Your task to perform on an android device: Open the calendar app, open the side menu, and click the "Day" option Image 0: 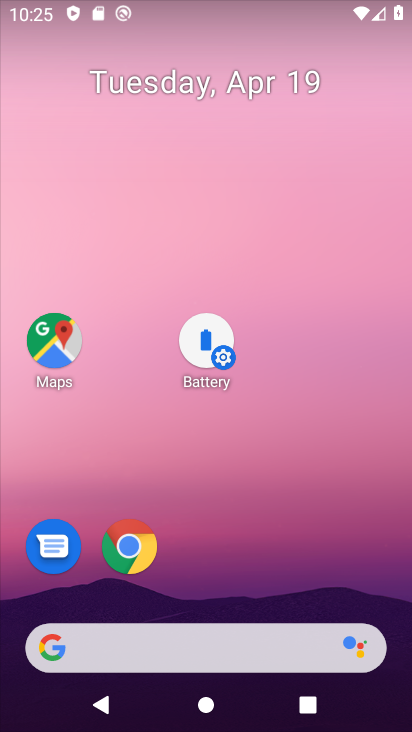
Step 0: drag from (191, 605) to (324, 49)
Your task to perform on an android device: Open the calendar app, open the side menu, and click the "Day" option Image 1: 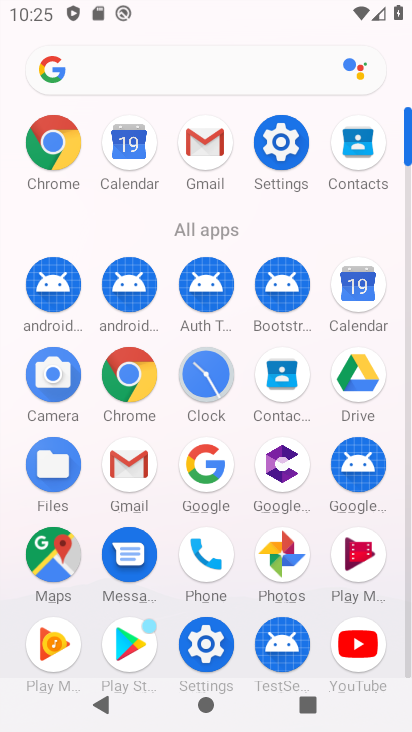
Step 1: click (352, 287)
Your task to perform on an android device: Open the calendar app, open the side menu, and click the "Day" option Image 2: 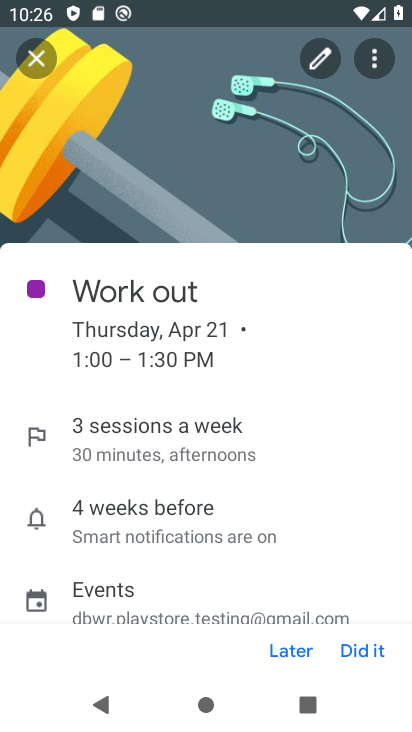
Step 2: click (29, 65)
Your task to perform on an android device: Open the calendar app, open the side menu, and click the "Day" option Image 3: 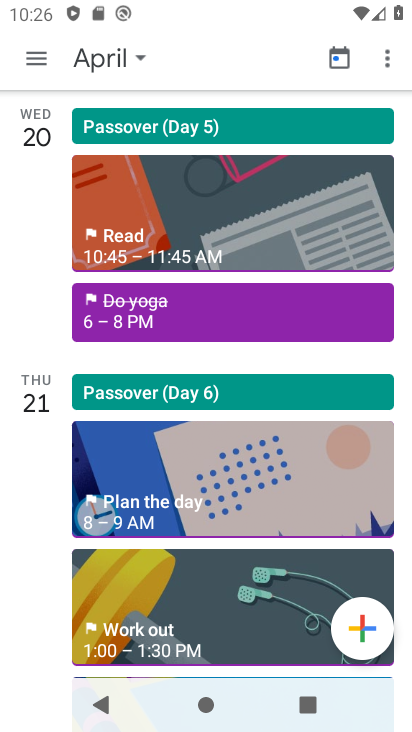
Step 3: click (22, 51)
Your task to perform on an android device: Open the calendar app, open the side menu, and click the "Day" option Image 4: 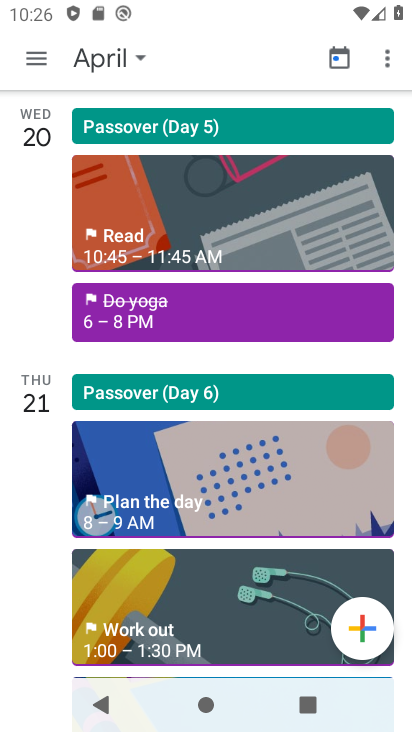
Step 4: click (37, 51)
Your task to perform on an android device: Open the calendar app, open the side menu, and click the "Day" option Image 5: 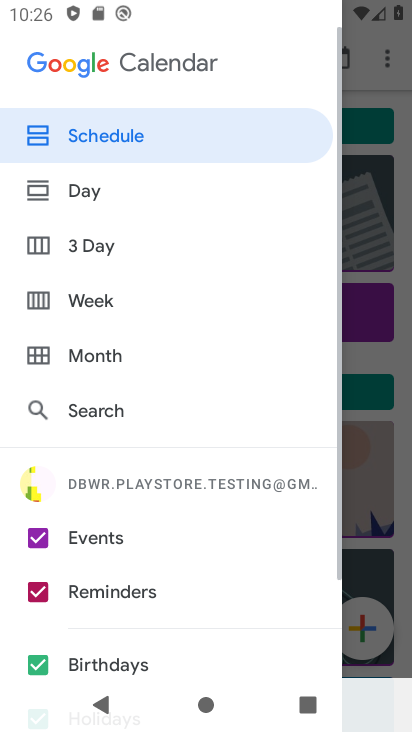
Step 5: click (111, 187)
Your task to perform on an android device: Open the calendar app, open the side menu, and click the "Day" option Image 6: 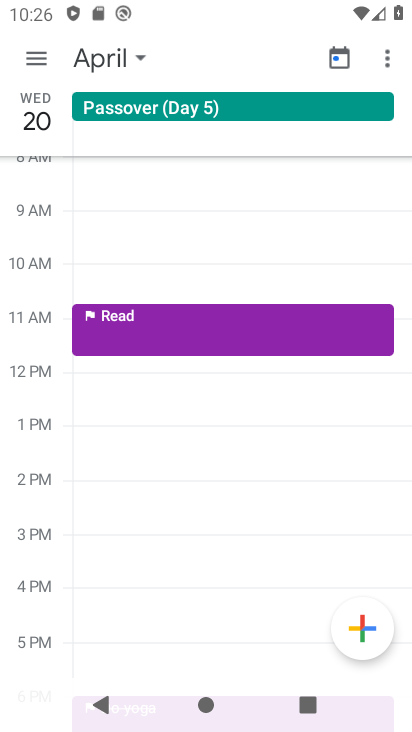
Step 6: task complete